Your task to perform on an android device: What's the weather going to be this weekend? Image 0: 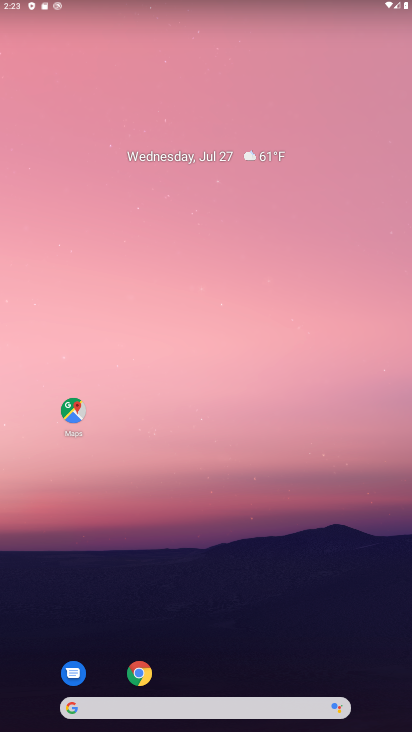
Step 0: click (148, 704)
Your task to perform on an android device: What's the weather going to be this weekend? Image 1: 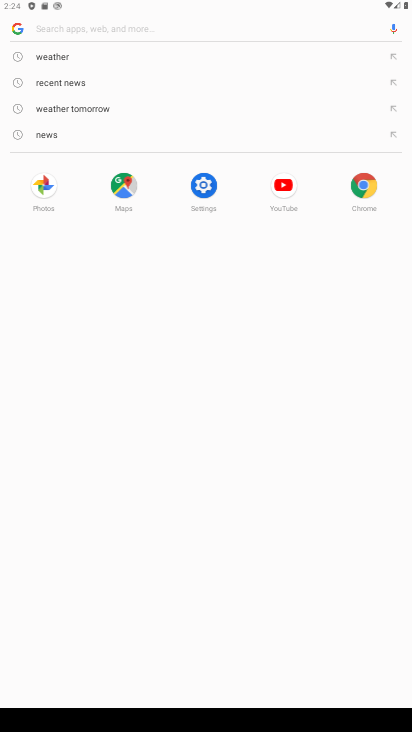
Step 1: type "What's the weather going to be this weekend?"
Your task to perform on an android device: What's the weather going to be this weekend? Image 2: 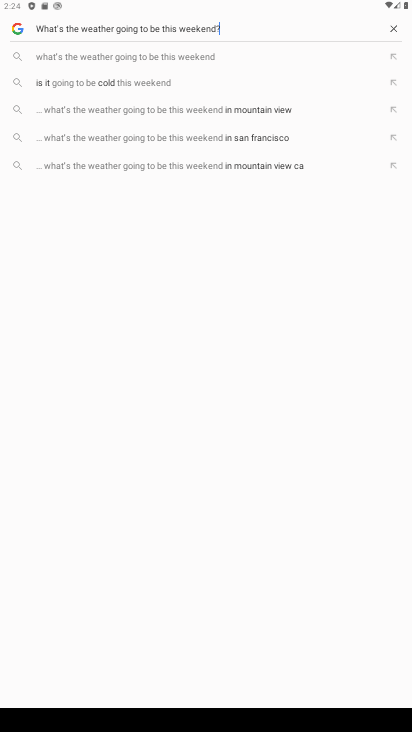
Step 2: type ""
Your task to perform on an android device: What's the weather going to be this weekend? Image 3: 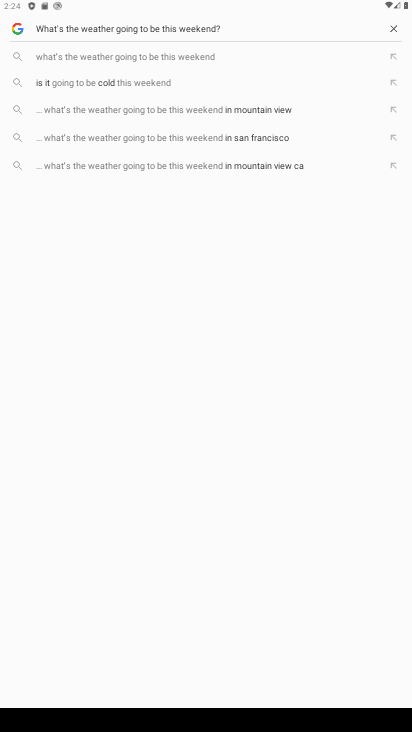
Step 3: type ""
Your task to perform on an android device: What's the weather going to be this weekend? Image 4: 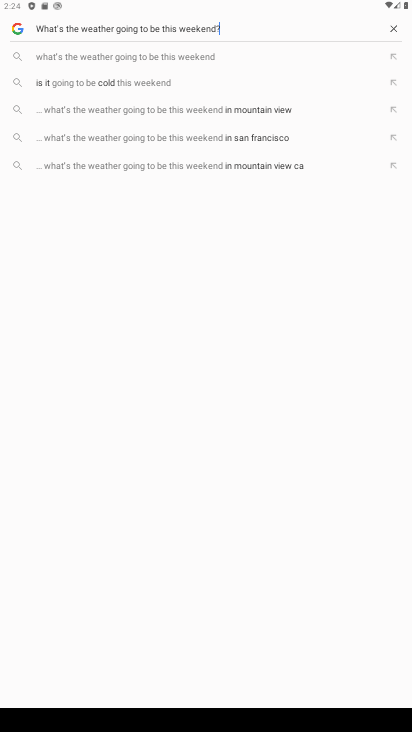
Step 4: type ""
Your task to perform on an android device: What's the weather going to be this weekend? Image 5: 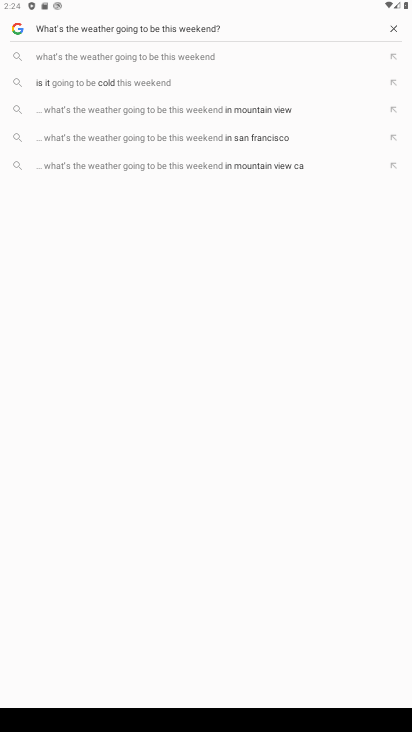
Step 5: task complete